Your task to perform on an android device: open the mobile data screen to see how much data has been used Image 0: 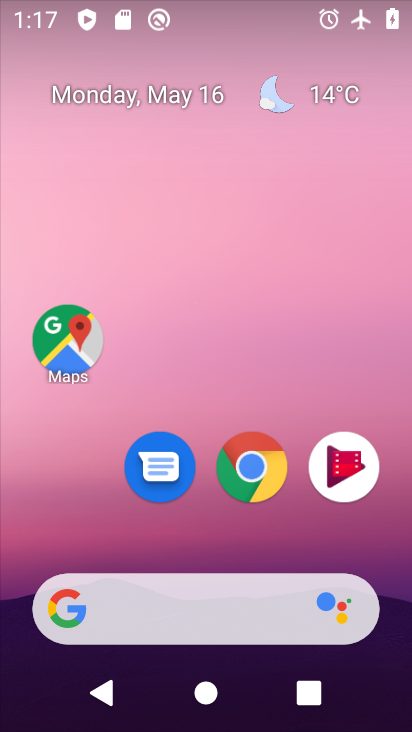
Step 0: drag from (240, 529) to (240, 142)
Your task to perform on an android device: open the mobile data screen to see how much data has been used Image 1: 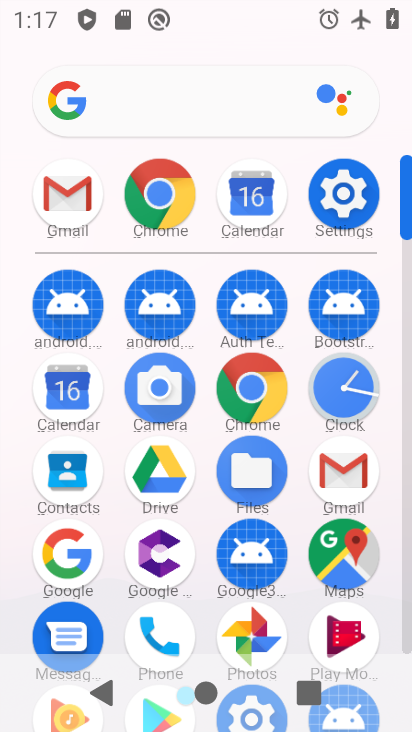
Step 1: click (347, 197)
Your task to perform on an android device: open the mobile data screen to see how much data has been used Image 2: 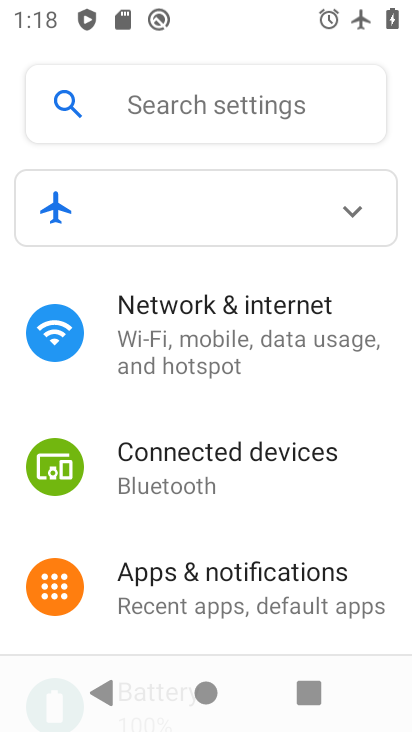
Step 2: drag from (217, 594) to (219, 383)
Your task to perform on an android device: open the mobile data screen to see how much data has been used Image 3: 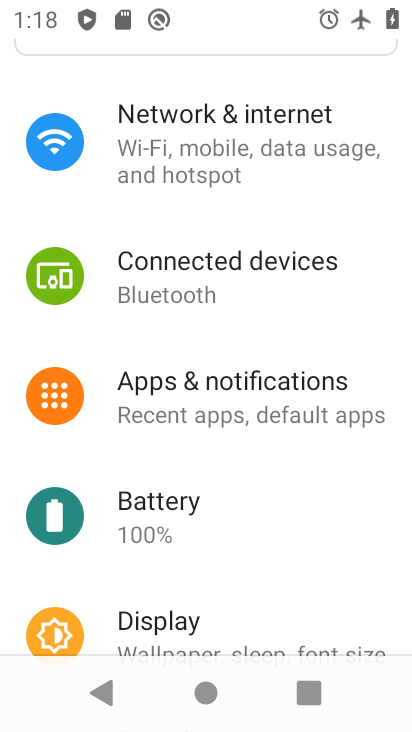
Step 3: click (219, 383)
Your task to perform on an android device: open the mobile data screen to see how much data has been used Image 4: 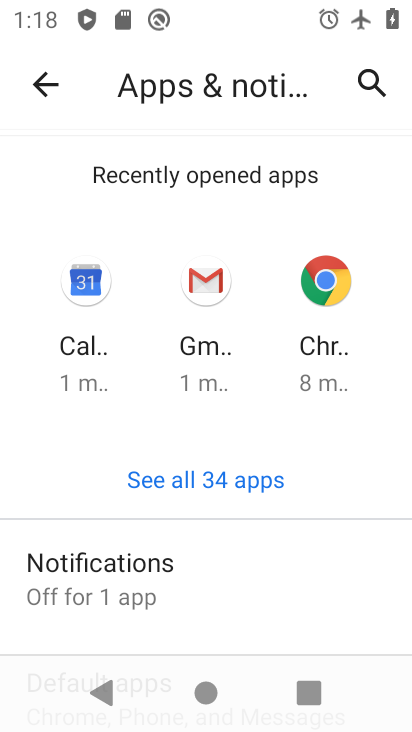
Step 4: click (43, 78)
Your task to perform on an android device: open the mobile data screen to see how much data has been used Image 5: 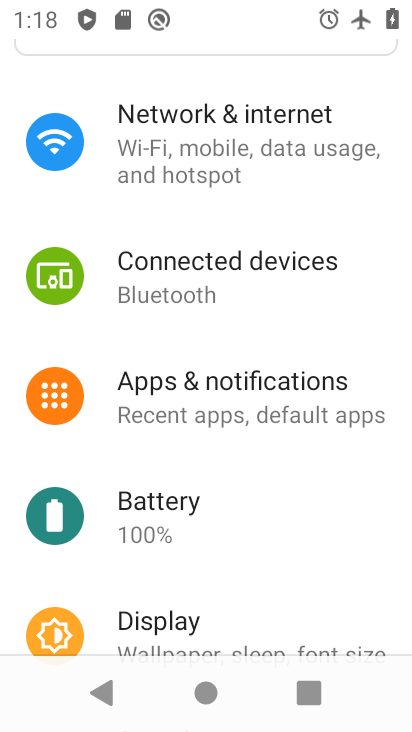
Step 5: drag from (244, 172) to (253, 595)
Your task to perform on an android device: open the mobile data screen to see how much data has been used Image 6: 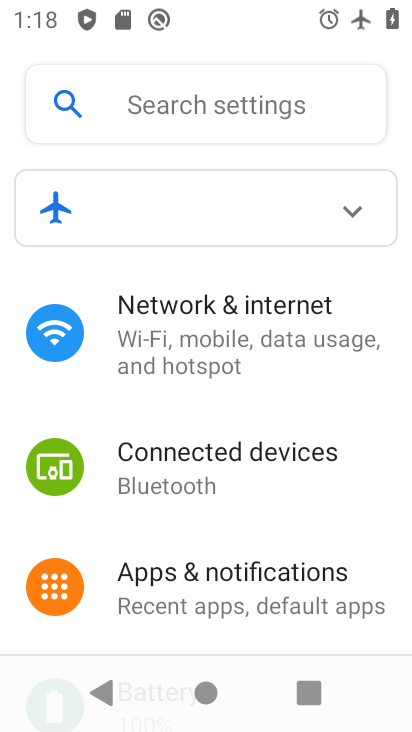
Step 6: click (204, 359)
Your task to perform on an android device: open the mobile data screen to see how much data has been used Image 7: 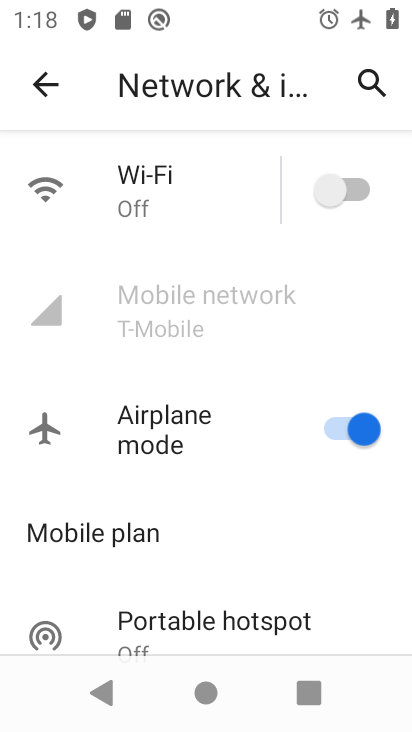
Step 7: task complete